Your task to perform on an android device: turn on wifi Image 0: 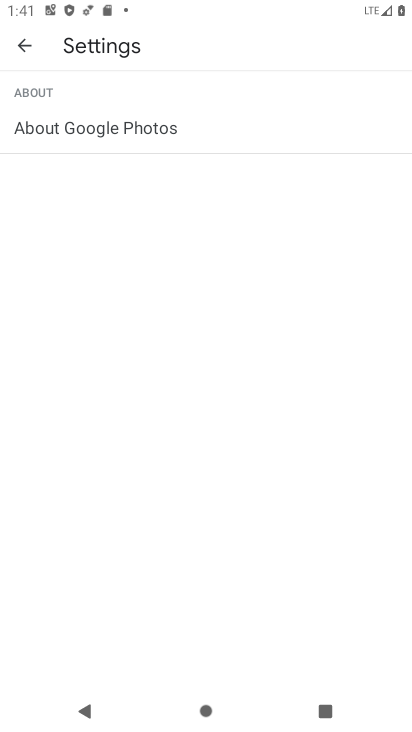
Step 0: press back button
Your task to perform on an android device: turn on wifi Image 1: 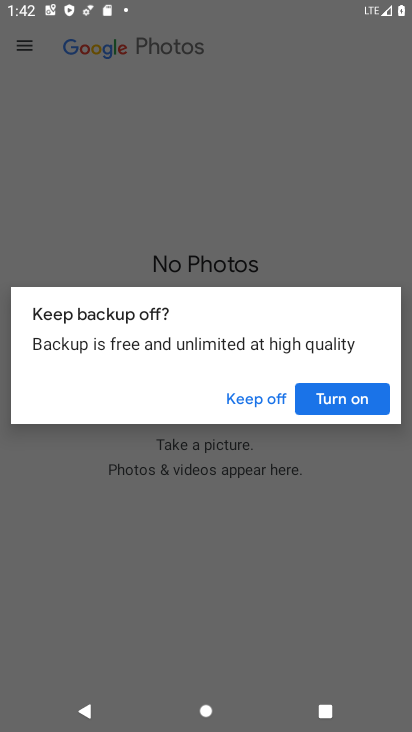
Step 1: press home button
Your task to perform on an android device: turn on wifi Image 2: 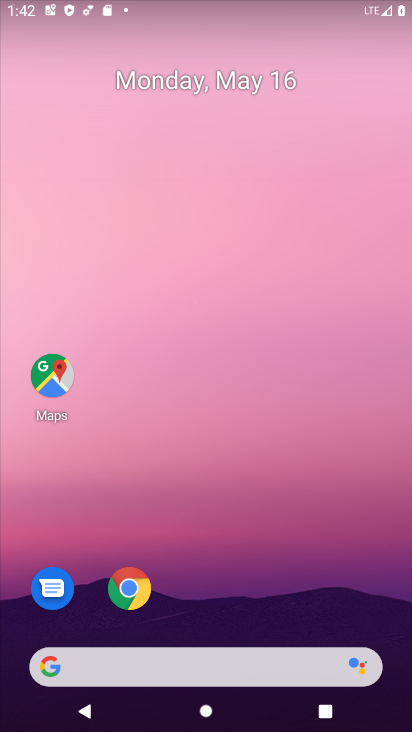
Step 2: drag from (272, 543) to (198, 96)
Your task to perform on an android device: turn on wifi Image 3: 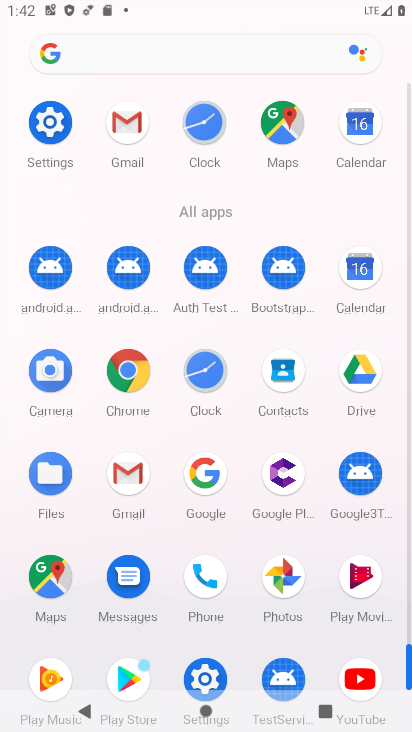
Step 3: click (50, 121)
Your task to perform on an android device: turn on wifi Image 4: 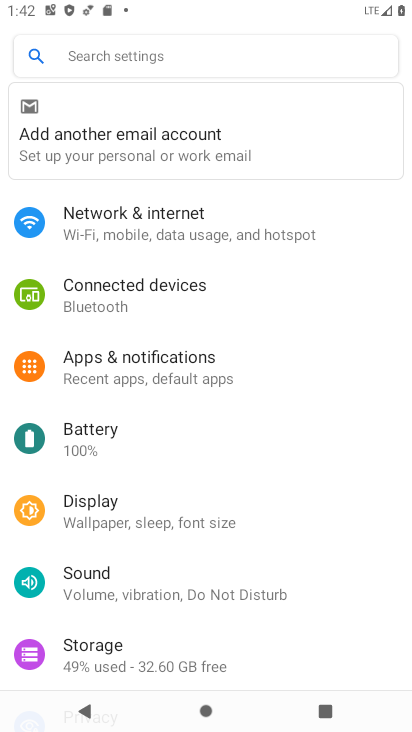
Step 4: click (130, 226)
Your task to perform on an android device: turn on wifi Image 5: 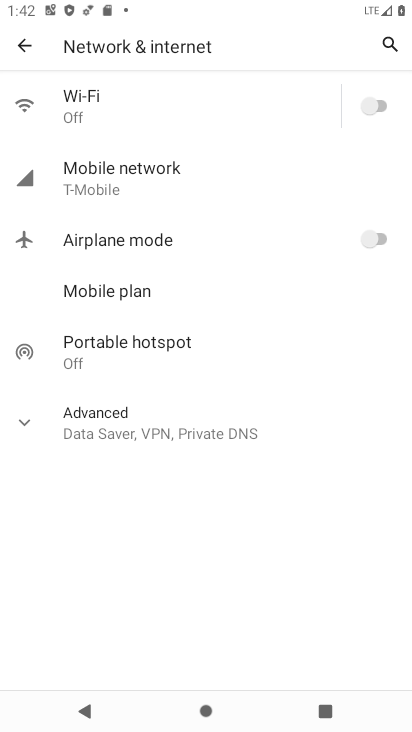
Step 5: click (376, 96)
Your task to perform on an android device: turn on wifi Image 6: 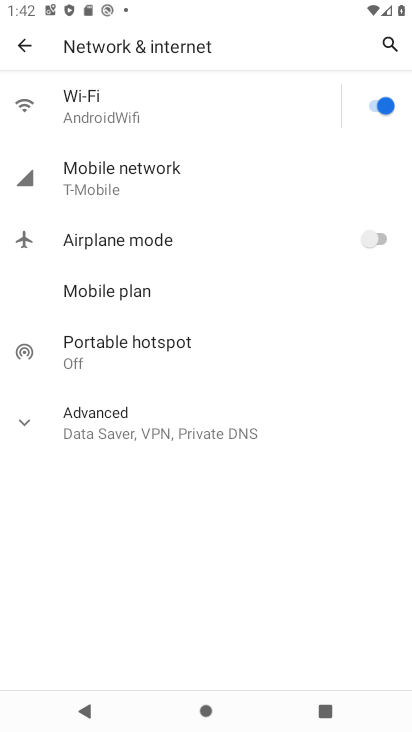
Step 6: task complete